Your task to perform on an android device: Search for Mexican restaurants on Maps Image 0: 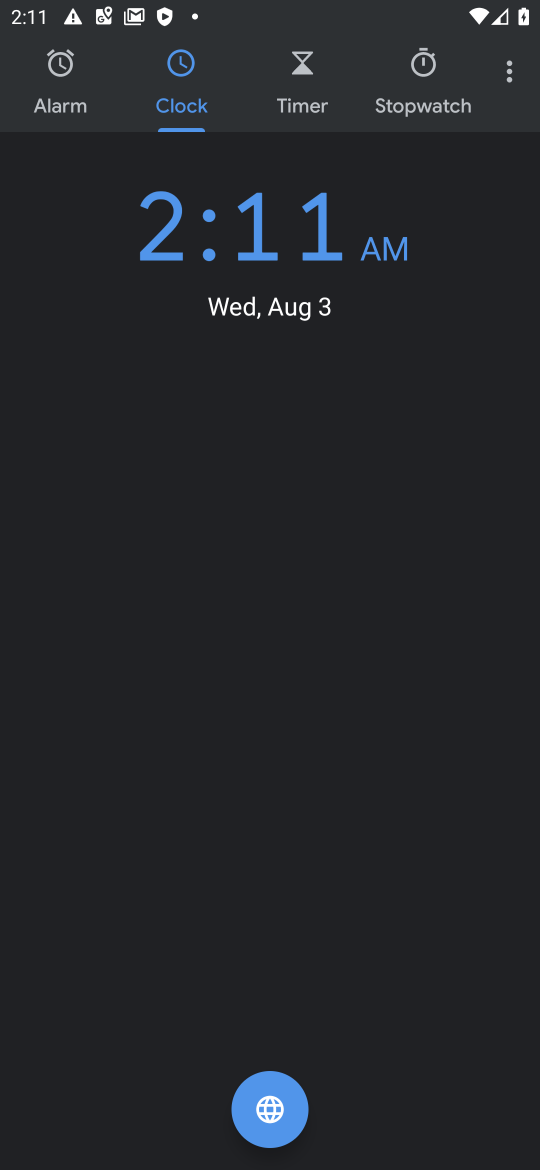
Step 0: press home button
Your task to perform on an android device: Search for Mexican restaurants on Maps Image 1: 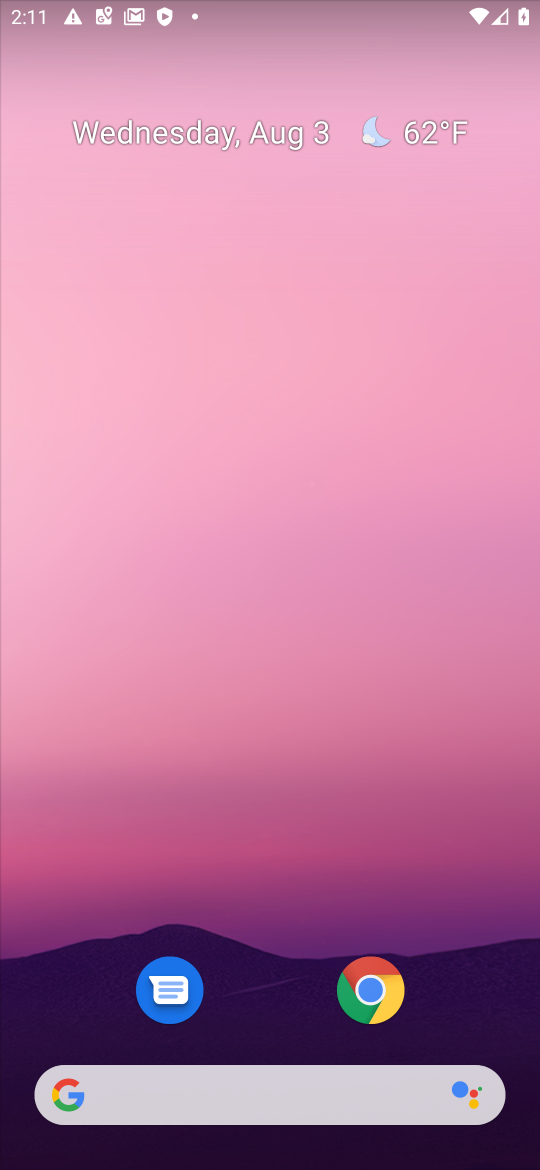
Step 1: drag from (310, 1017) to (310, 303)
Your task to perform on an android device: Search for Mexican restaurants on Maps Image 2: 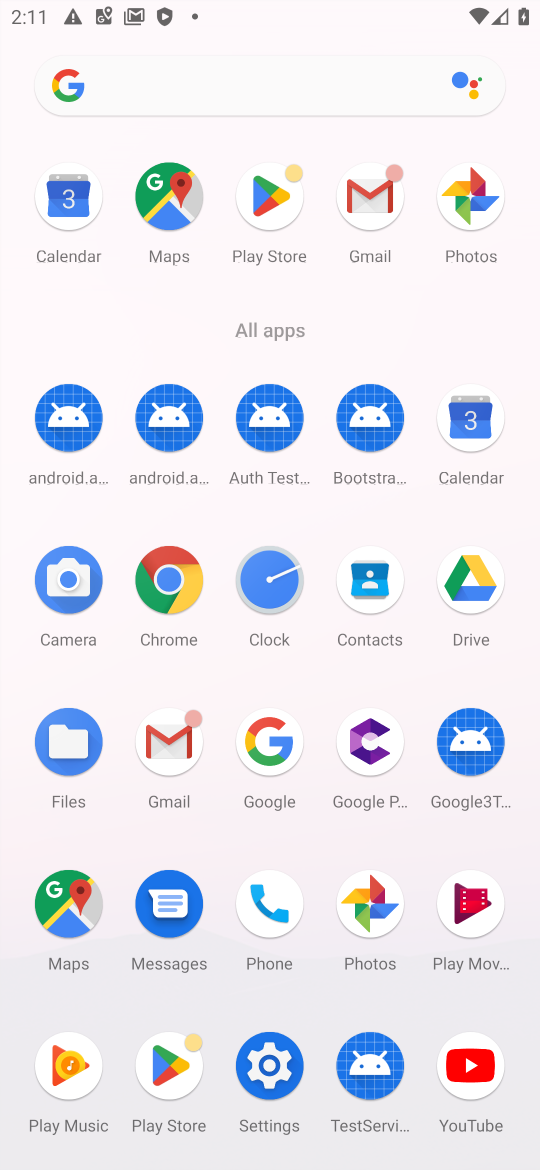
Step 2: click (73, 900)
Your task to perform on an android device: Search for Mexican restaurants on Maps Image 3: 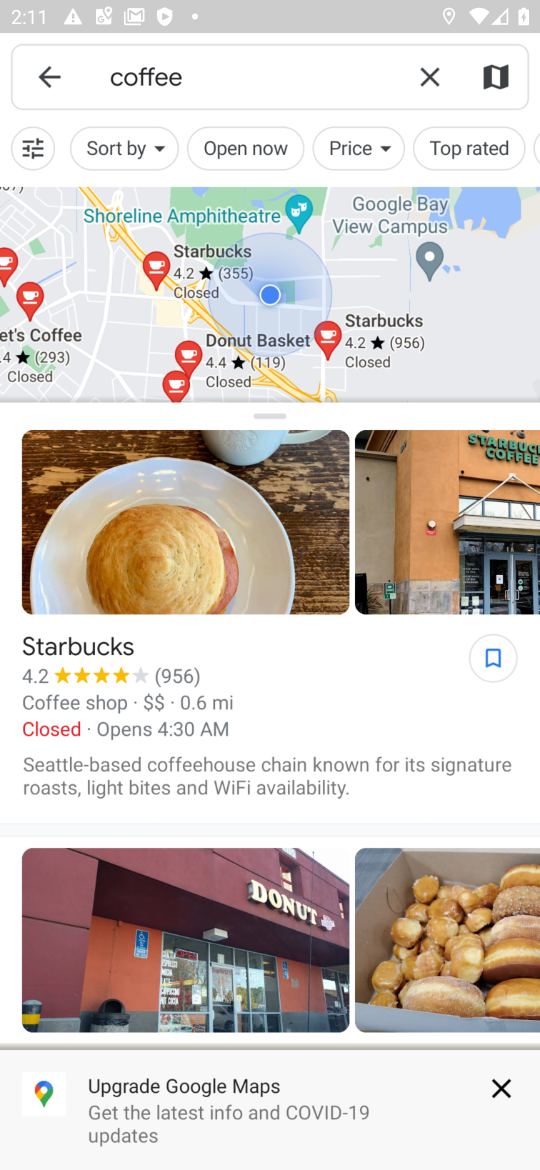
Step 3: click (204, 62)
Your task to perform on an android device: Search for Mexican restaurants on Maps Image 4: 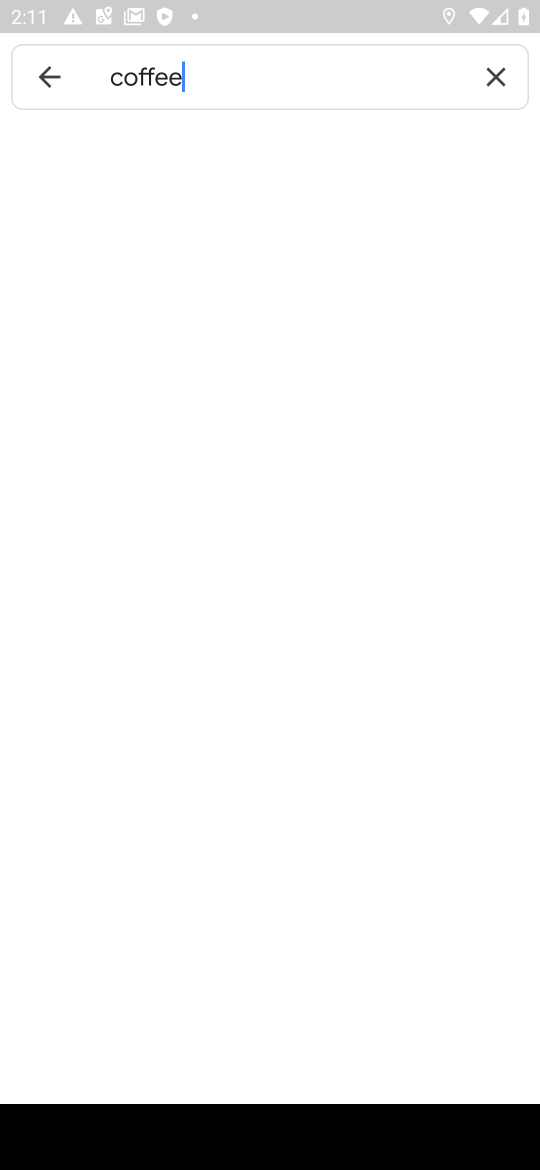
Step 4: click (498, 76)
Your task to perform on an android device: Search for Mexican restaurants on Maps Image 5: 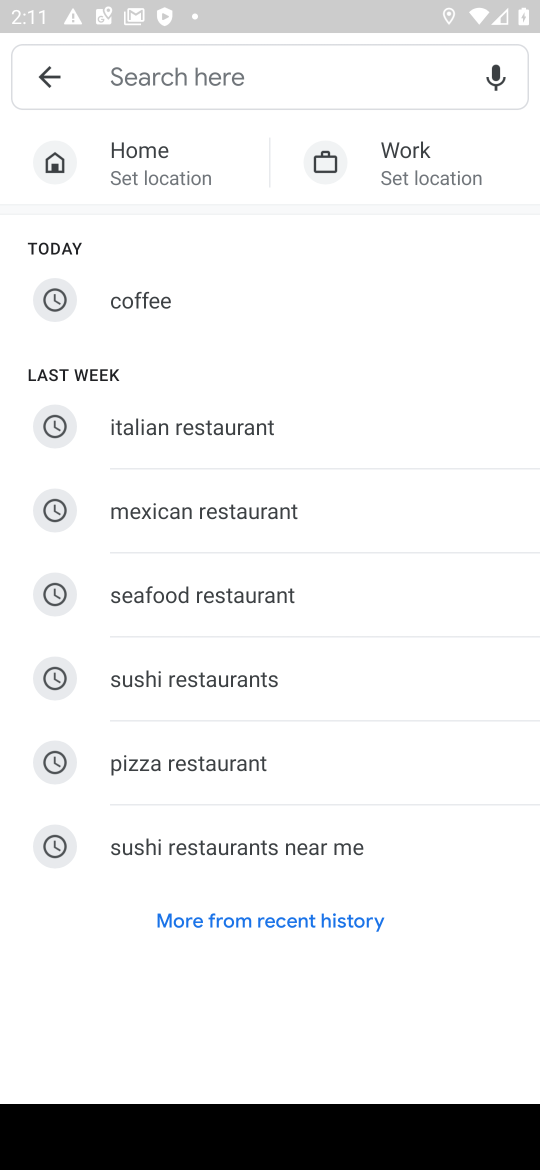
Step 5: click (231, 511)
Your task to perform on an android device: Search for Mexican restaurants on Maps Image 6: 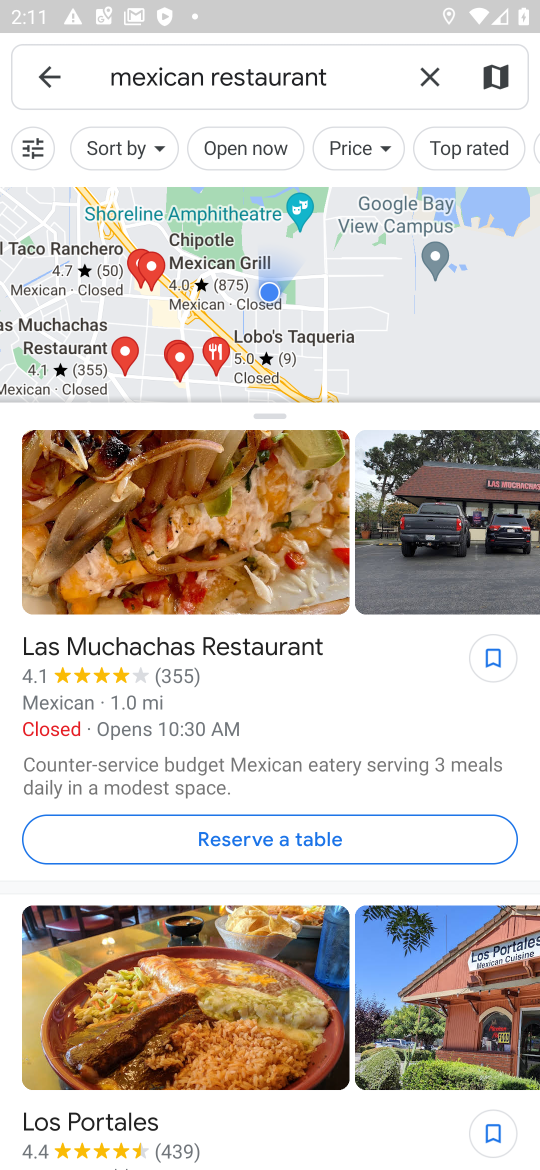
Step 6: task complete